Your task to perform on an android device: Open ESPN.com Image 0: 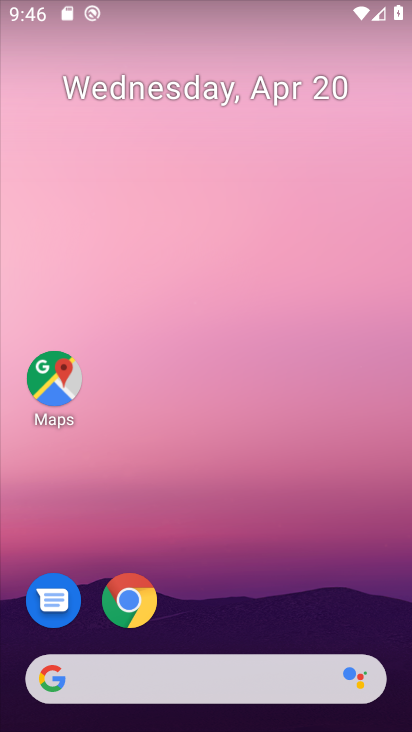
Step 0: click (138, 611)
Your task to perform on an android device: Open ESPN.com Image 1: 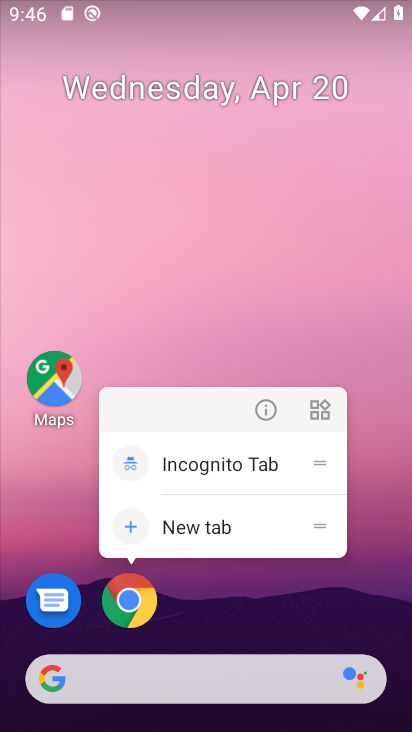
Step 1: click (133, 612)
Your task to perform on an android device: Open ESPN.com Image 2: 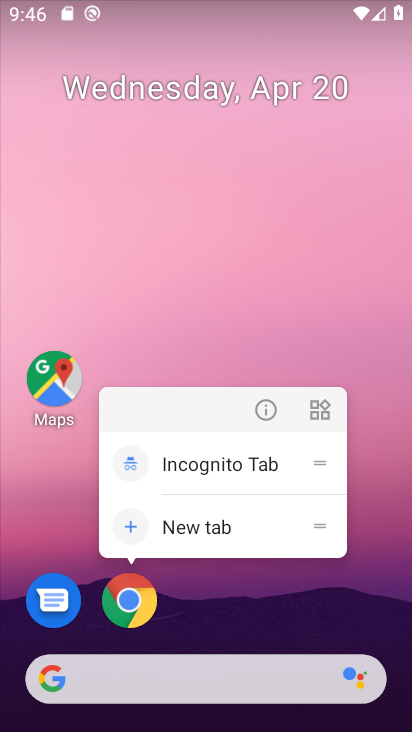
Step 2: click (131, 607)
Your task to perform on an android device: Open ESPN.com Image 3: 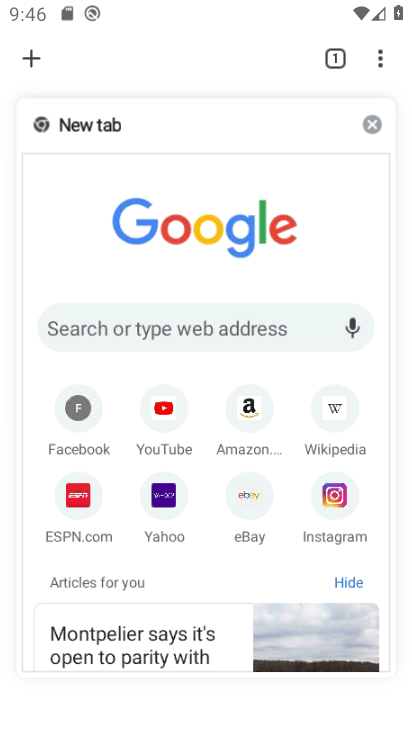
Step 3: click (138, 339)
Your task to perform on an android device: Open ESPN.com Image 4: 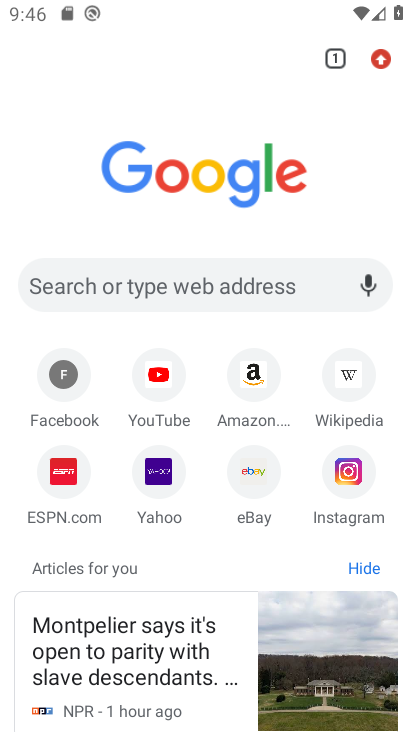
Step 4: click (263, 284)
Your task to perform on an android device: Open ESPN.com Image 5: 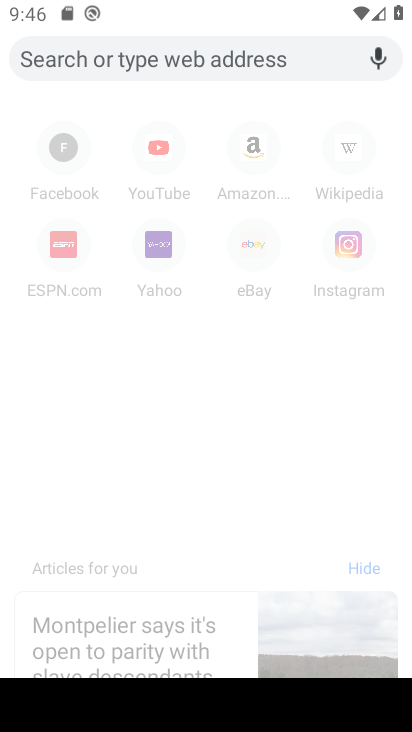
Step 5: type "ESPN.com"
Your task to perform on an android device: Open ESPN.com Image 6: 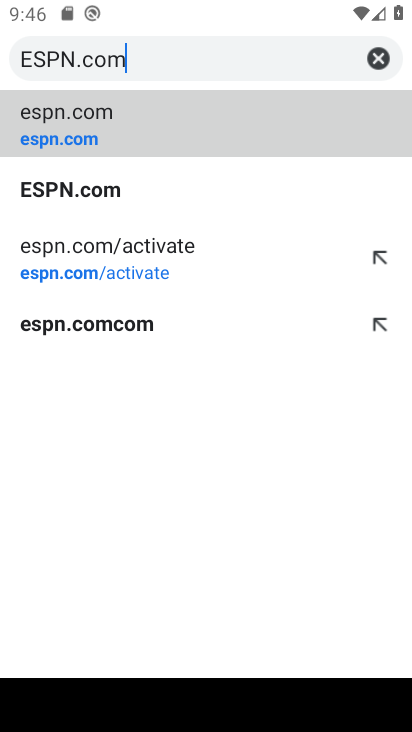
Step 6: click (46, 143)
Your task to perform on an android device: Open ESPN.com Image 7: 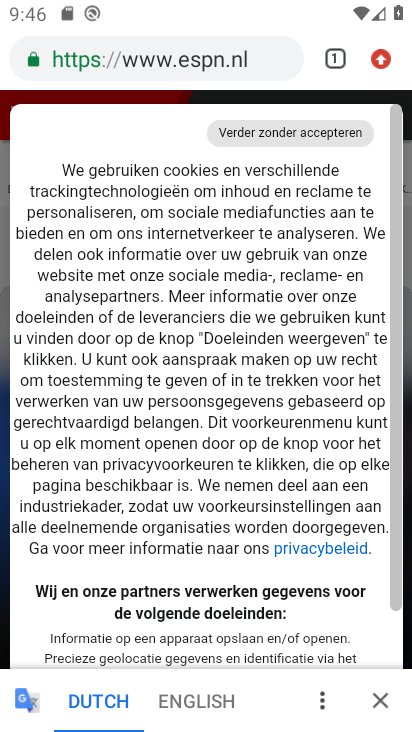
Step 7: task complete